Your task to perform on an android device: Show the shopping cart on walmart.com. Search for "sony triple a" on walmart.com, select the first entry, add it to the cart, then select checkout. Image 0: 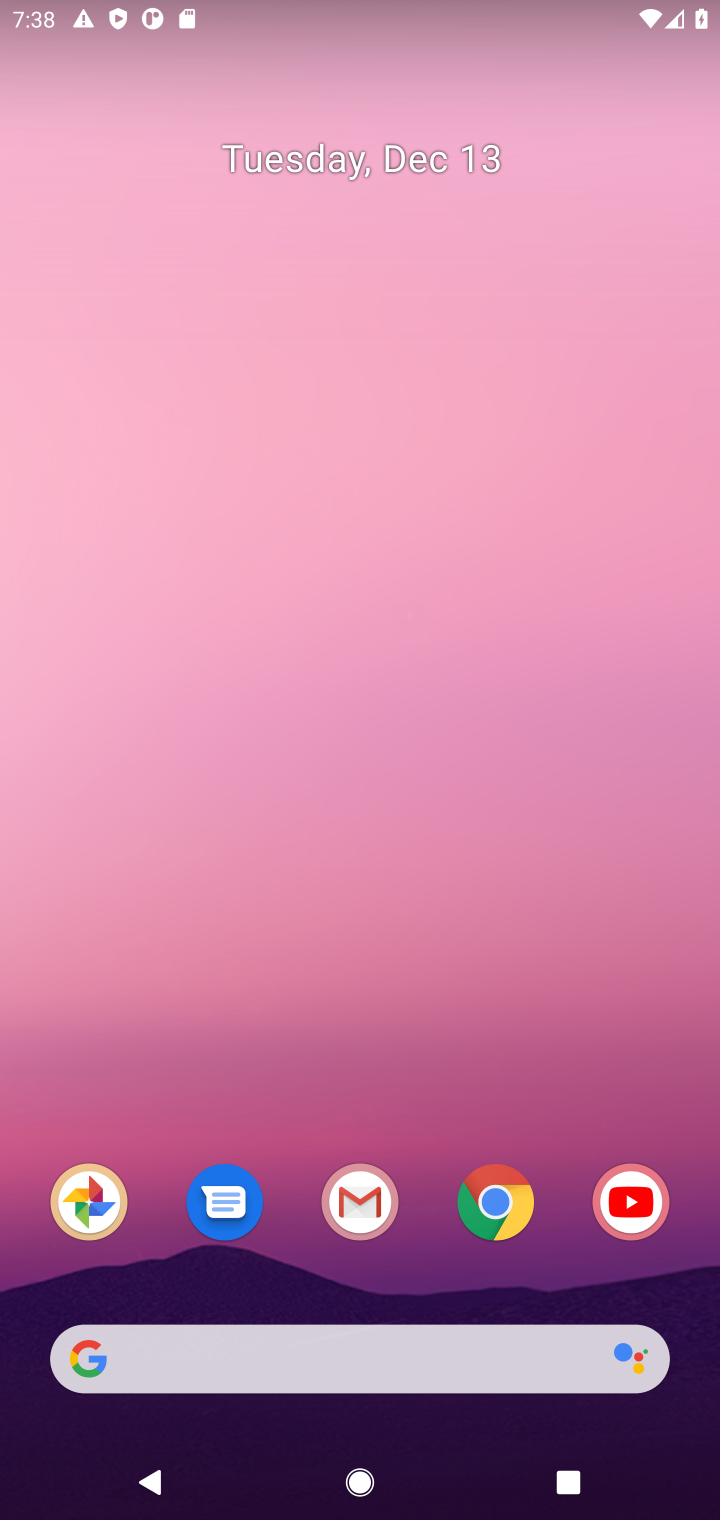
Step 0: click (503, 1209)
Your task to perform on an android device: Show the shopping cart on walmart.com. Search for "sony triple a" on walmart.com, select the first entry, add it to the cart, then select checkout. Image 1: 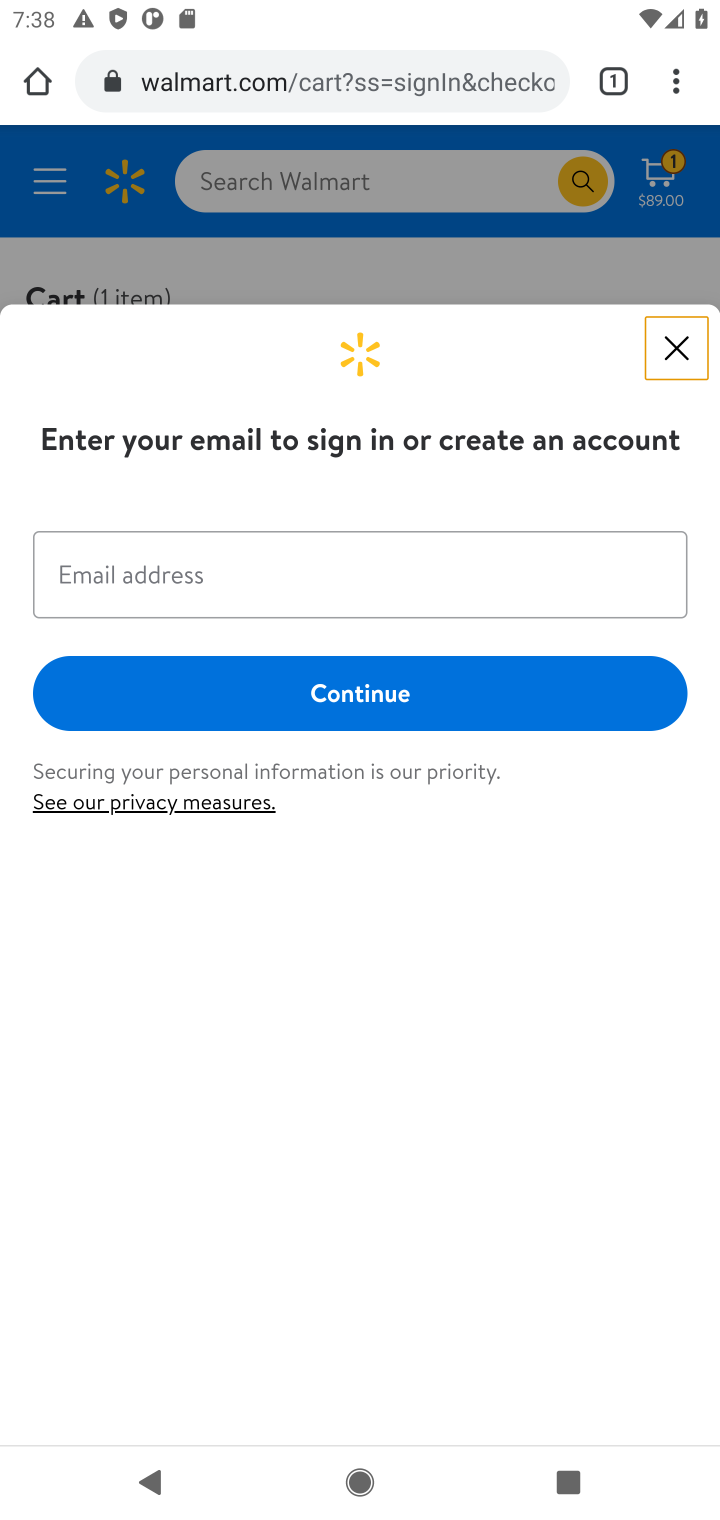
Step 1: click (677, 348)
Your task to perform on an android device: Show the shopping cart on walmart.com. Search for "sony triple a" on walmart.com, select the first entry, add it to the cart, then select checkout. Image 2: 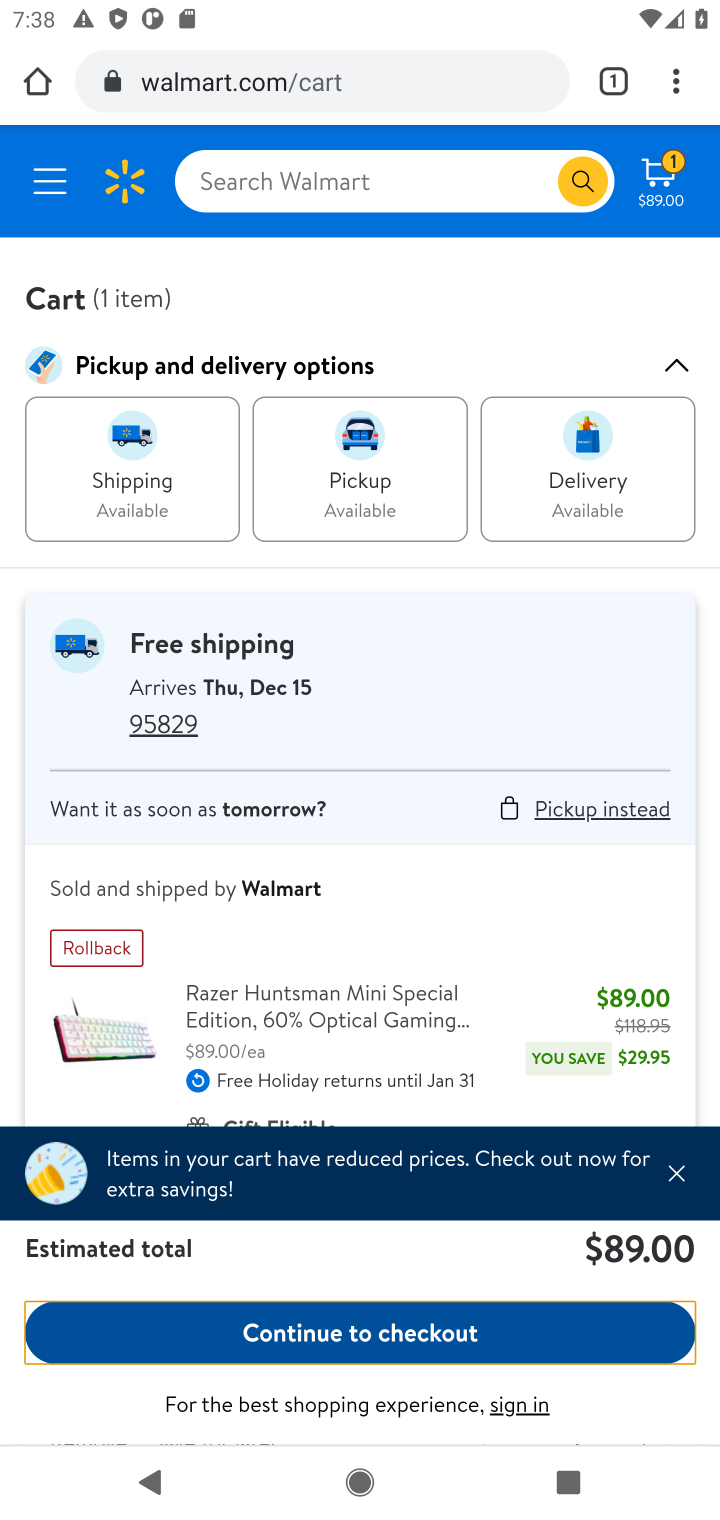
Step 2: click (656, 187)
Your task to perform on an android device: Show the shopping cart on walmart.com. Search for "sony triple a" on walmart.com, select the first entry, add it to the cart, then select checkout. Image 3: 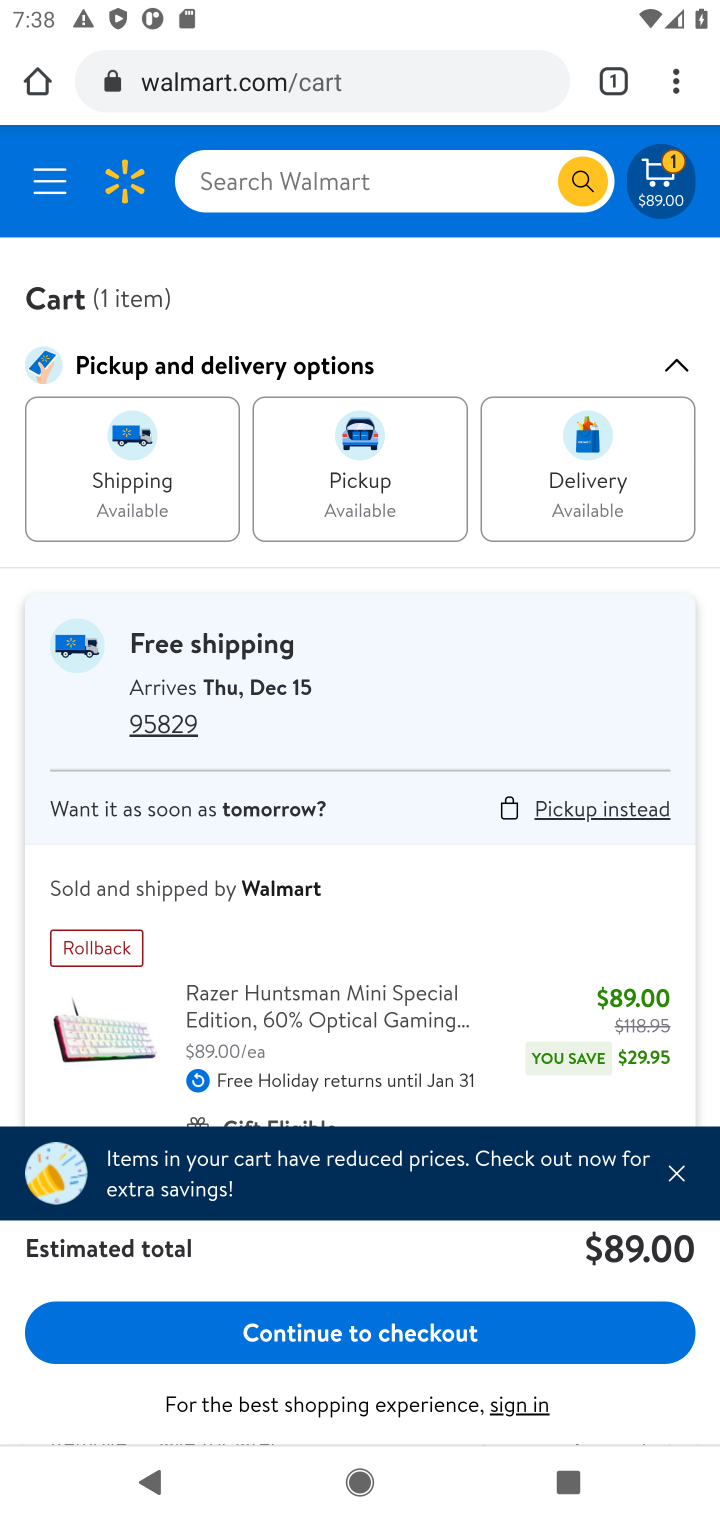
Step 3: drag from (436, 885) to (436, 584)
Your task to perform on an android device: Show the shopping cart on walmart.com. Search for "sony triple a" on walmart.com, select the first entry, add it to the cart, then select checkout. Image 4: 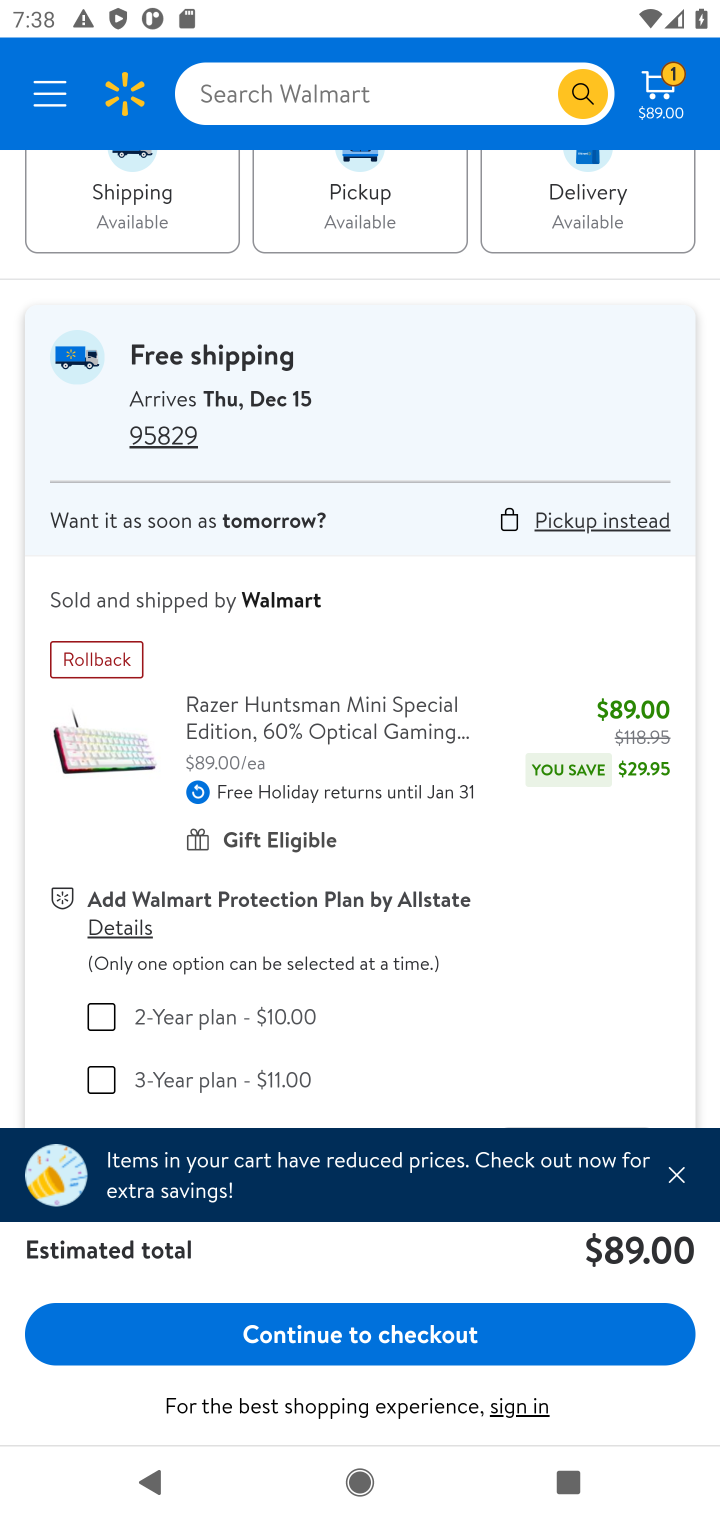
Step 4: click (279, 95)
Your task to perform on an android device: Show the shopping cart on walmart.com. Search for "sony triple a" on walmart.com, select the first entry, add it to the cart, then select checkout. Image 5: 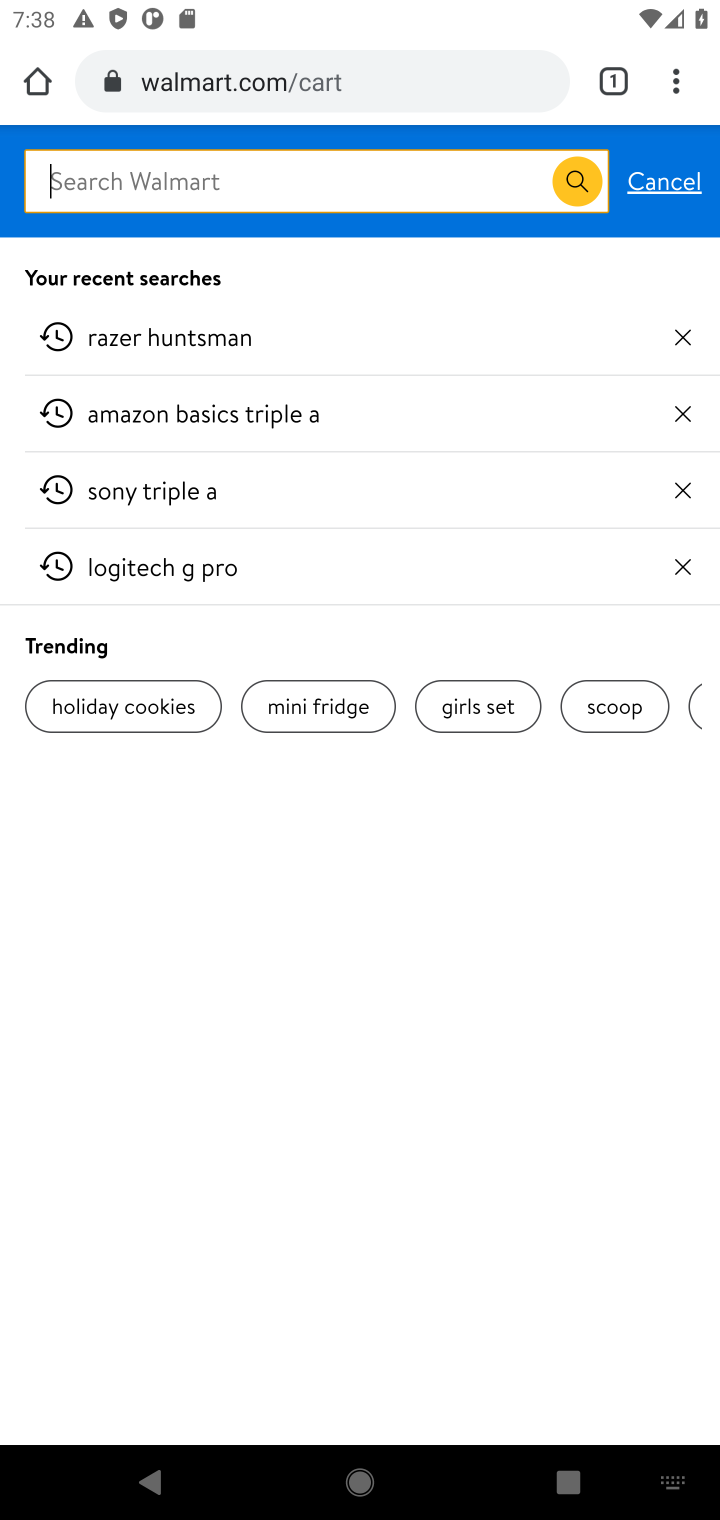
Step 5: type "sony triple a"
Your task to perform on an android device: Show the shopping cart on walmart.com. Search for "sony triple a" on walmart.com, select the first entry, add it to the cart, then select checkout. Image 6: 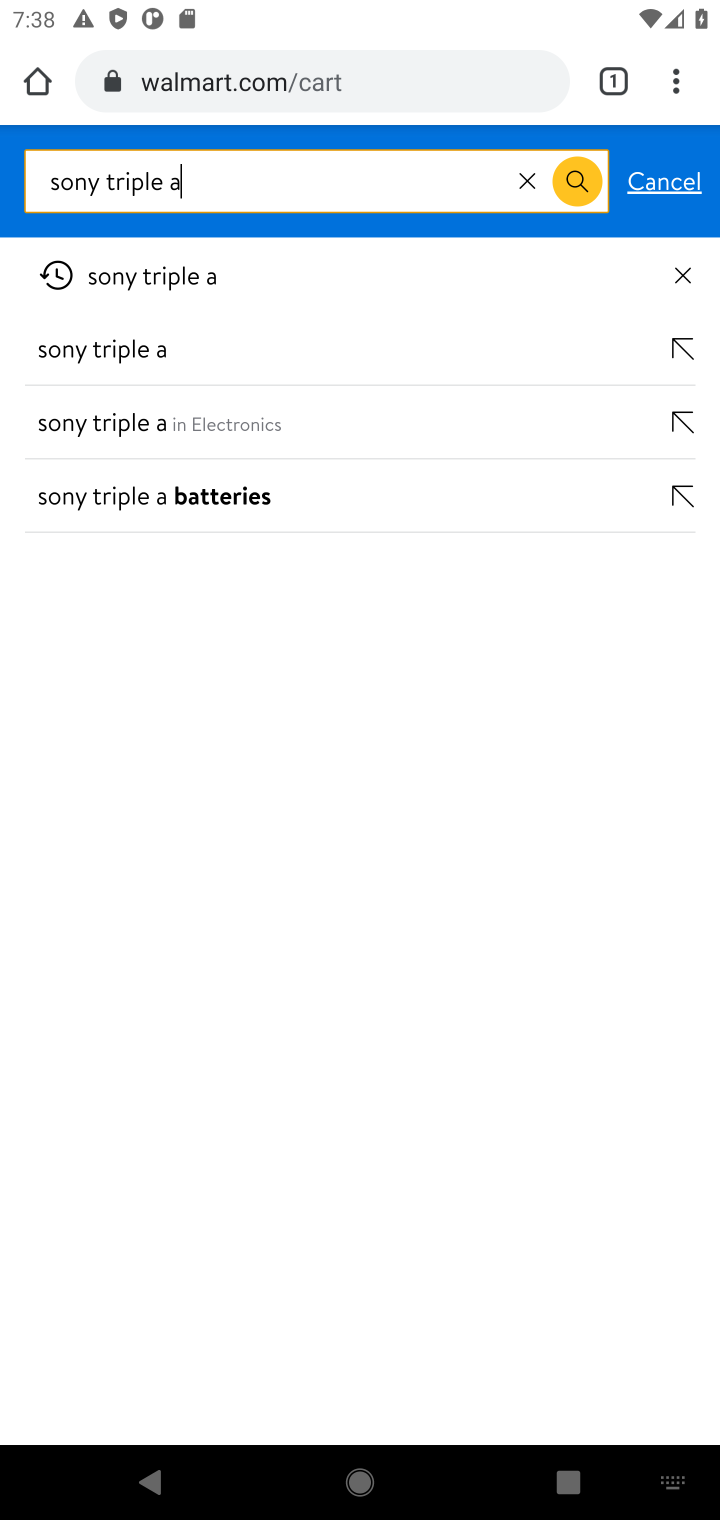
Step 6: click (156, 285)
Your task to perform on an android device: Show the shopping cart on walmart.com. Search for "sony triple a" on walmart.com, select the first entry, add it to the cart, then select checkout. Image 7: 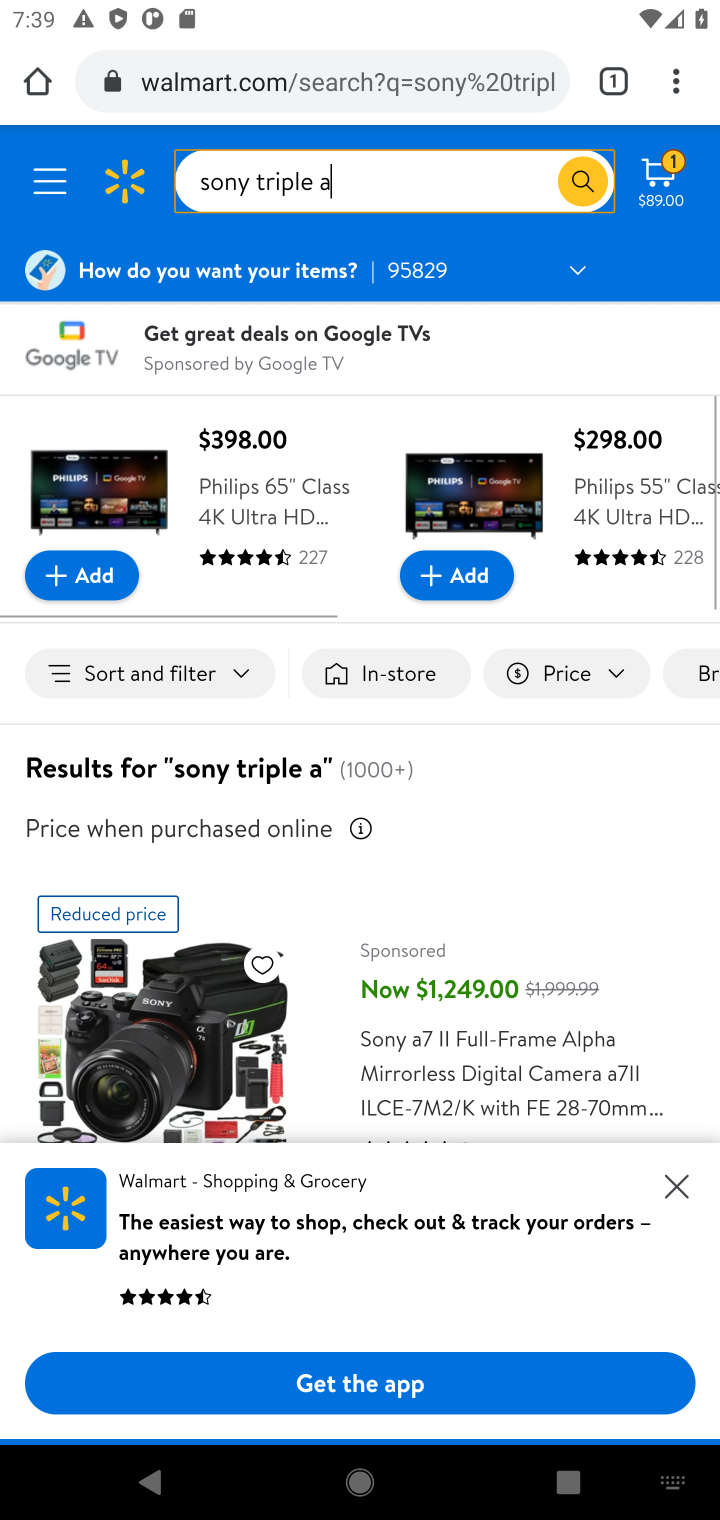
Step 7: drag from (227, 758) to (185, 353)
Your task to perform on an android device: Show the shopping cart on walmart.com. Search for "sony triple a" on walmart.com, select the first entry, add it to the cart, then select checkout. Image 8: 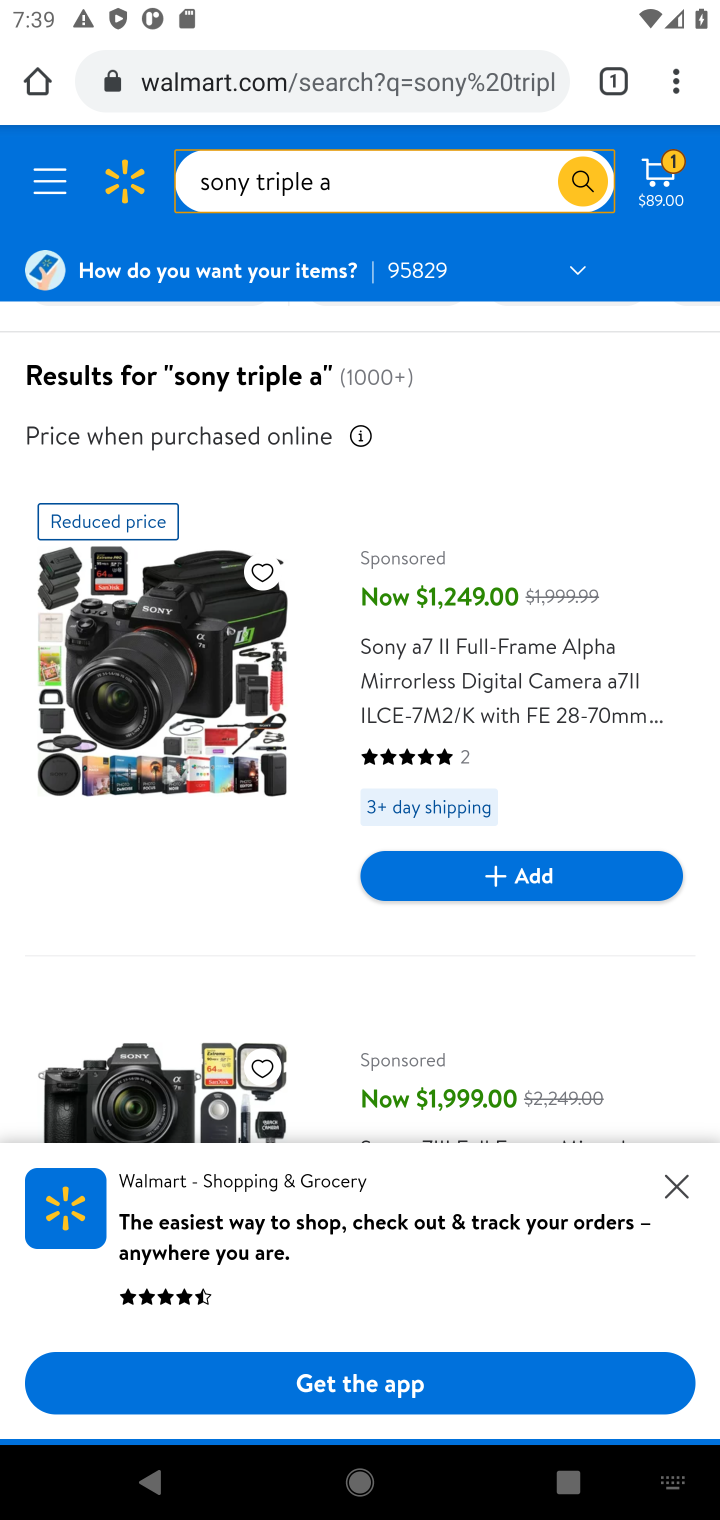
Step 8: click (465, 662)
Your task to perform on an android device: Show the shopping cart on walmart.com. Search for "sony triple a" on walmart.com, select the first entry, add it to the cart, then select checkout. Image 9: 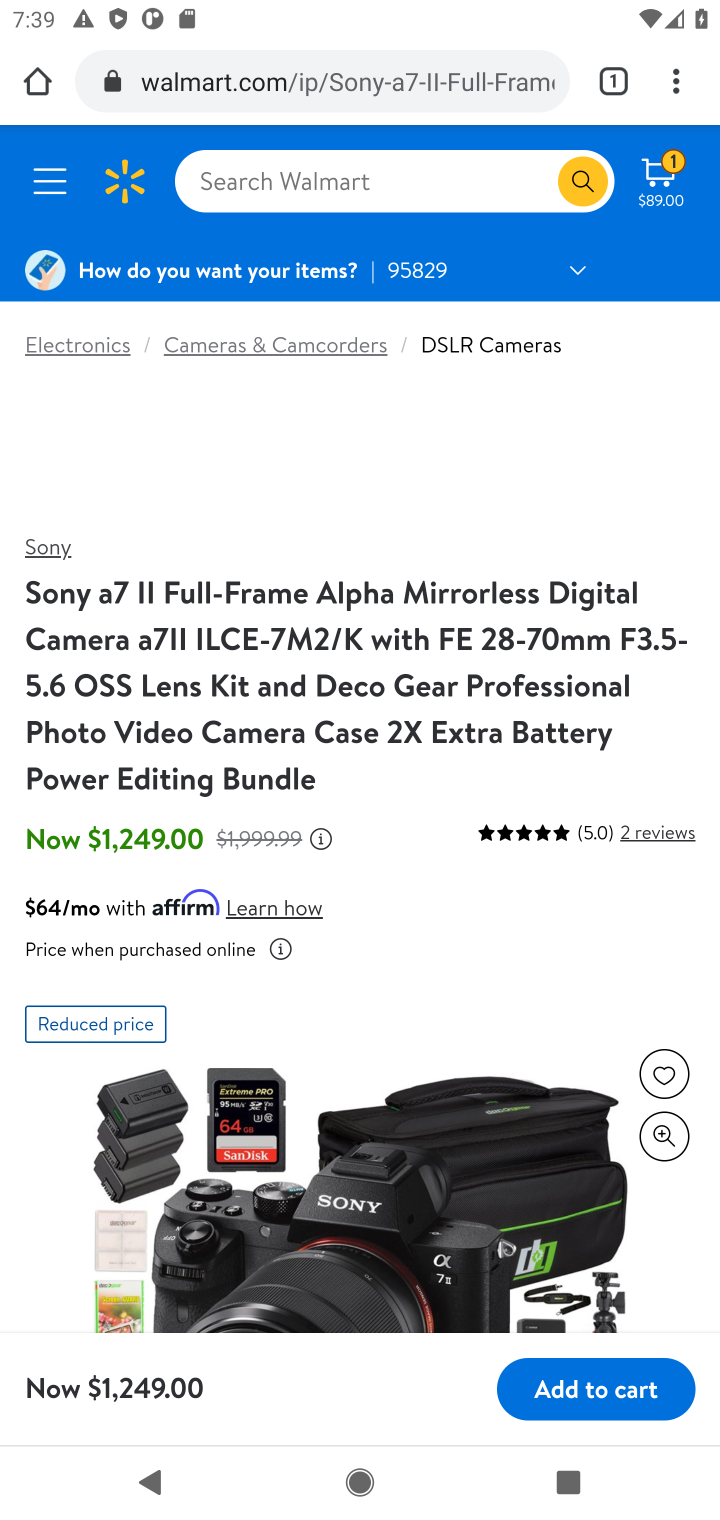
Step 9: task complete